Your task to perform on an android device: Open settings Image 0: 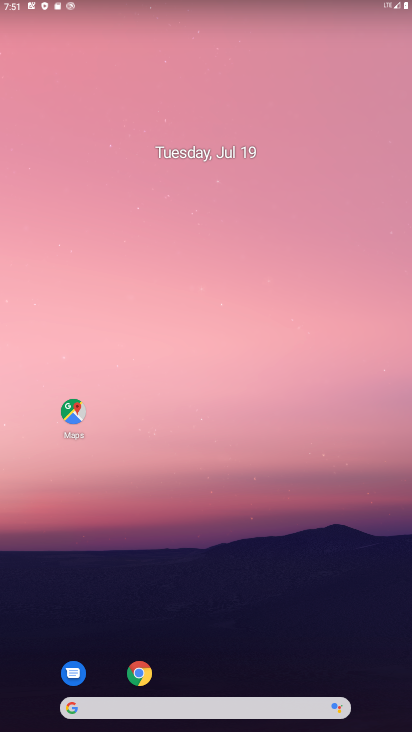
Step 0: drag from (377, 688) to (246, 27)
Your task to perform on an android device: Open settings Image 1: 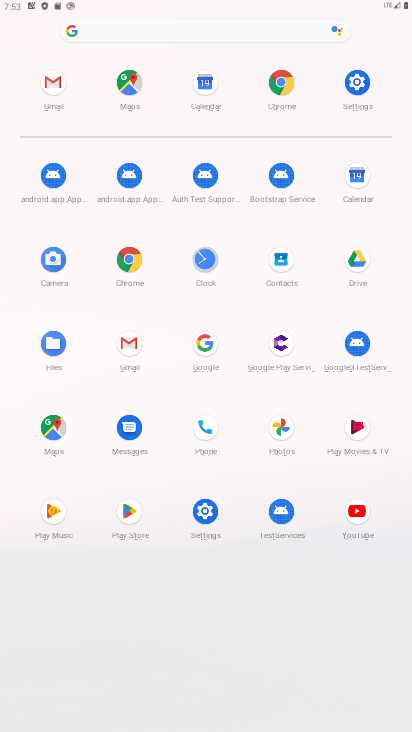
Step 1: click (205, 515)
Your task to perform on an android device: Open settings Image 2: 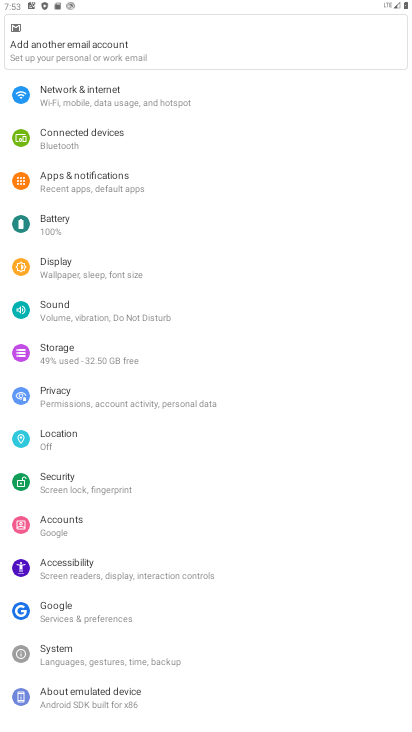
Step 2: task complete